Your task to perform on an android device: turn off wifi Image 0: 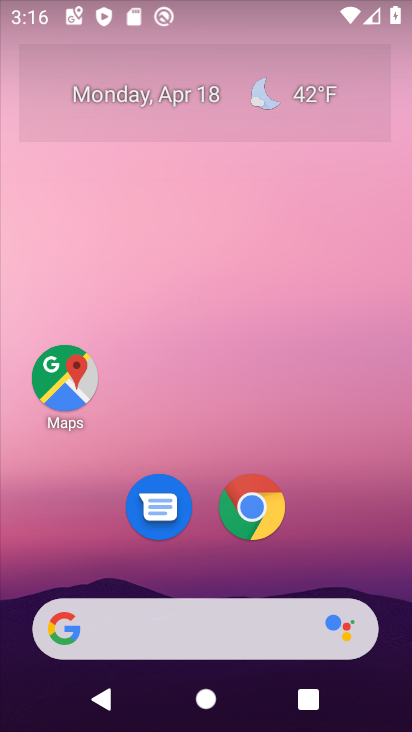
Step 0: click (311, 94)
Your task to perform on an android device: turn off wifi Image 1: 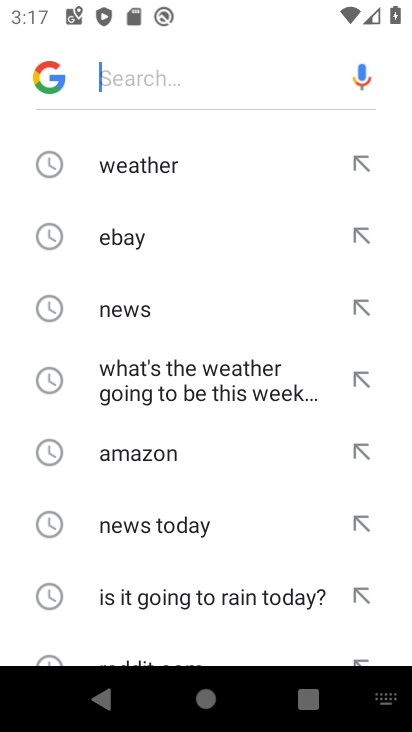
Step 1: press home button
Your task to perform on an android device: turn off wifi Image 2: 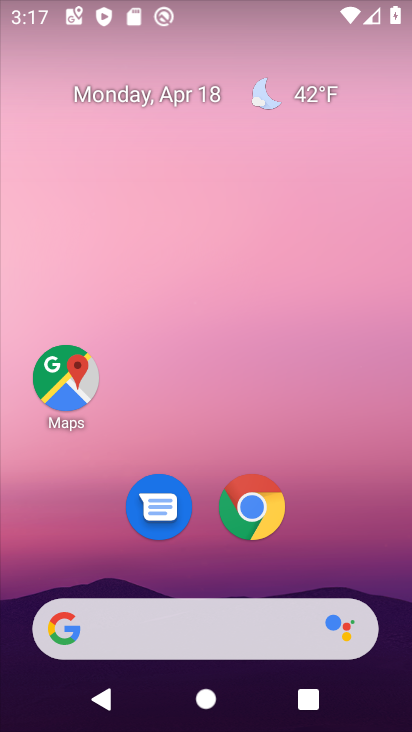
Step 2: drag from (346, 511) to (367, 158)
Your task to perform on an android device: turn off wifi Image 3: 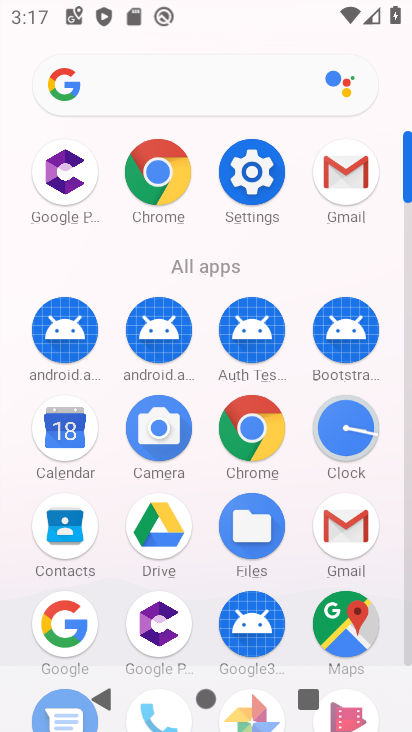
Step 3: click (265, 186)
Your task to perform on an android device: turn off wifi Image 4: 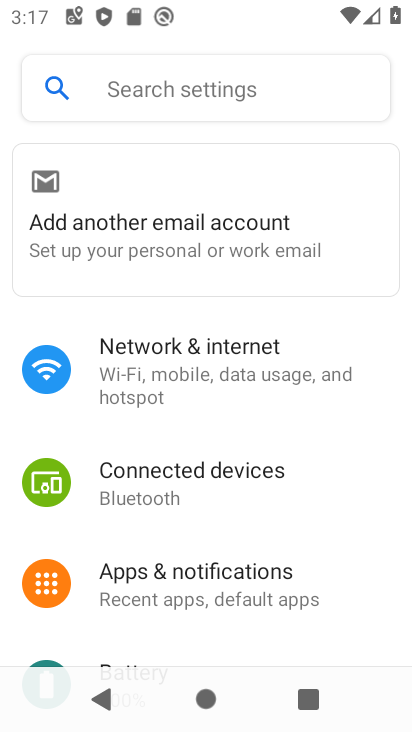
Step 4: click (205, 390)
Your task to perform on an android device: turn off wifi Image 5: 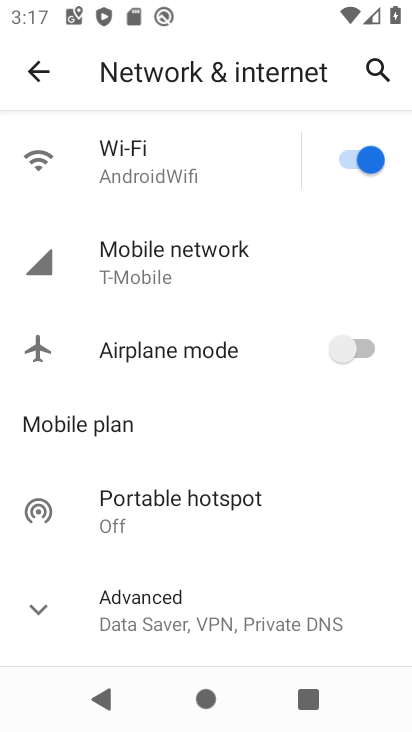
Step 5: click (351, 159)
Your task to perform on an android device: turn off wifi Image 6: 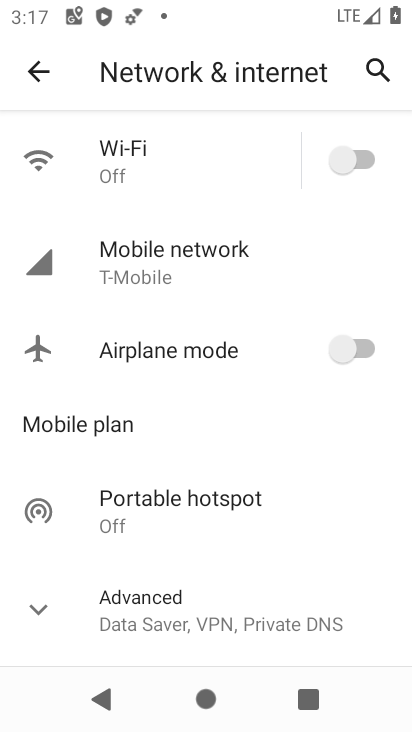
Step 6: task complete